Your task to perform on an android device: turn off improve location accuracy Image 0: 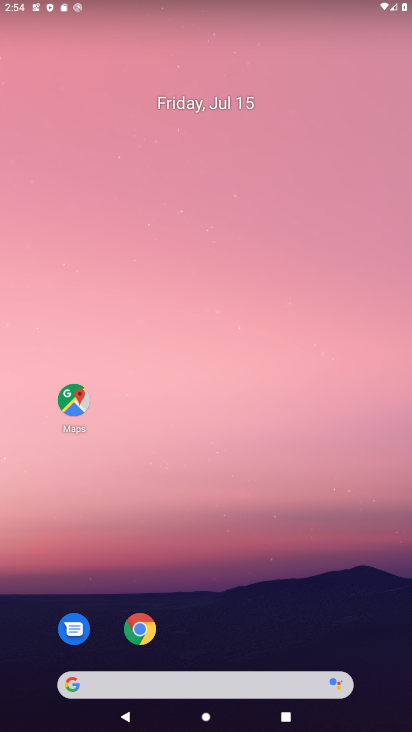
Step 0: drag from (187, 649) to (156, 34)
Your task to perform on an android device: turn off improve location accuracy Image 1: 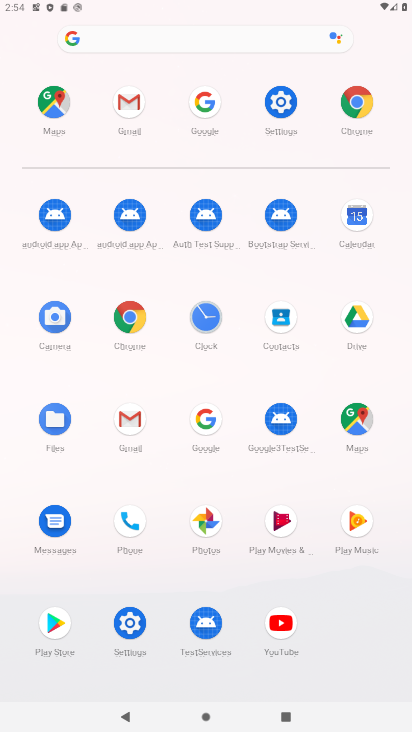
Step 1: click (123, 623)
Your task to perform on an android device: turn off improve location accuracy Image 2: 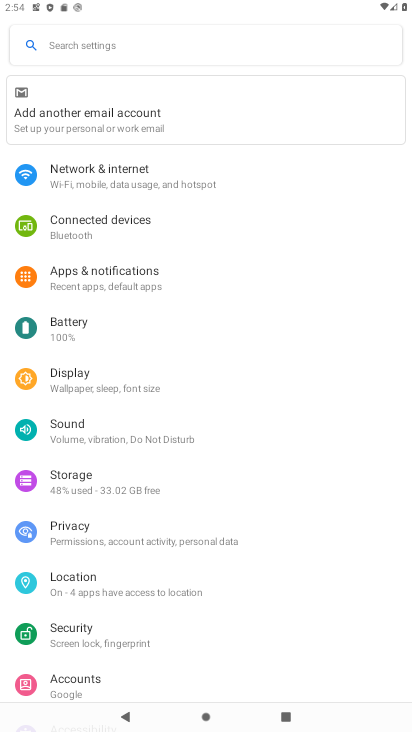
Step 2: click (63, 580)
Your task to perform on an android device: turn off improve location accuracy Image 3: 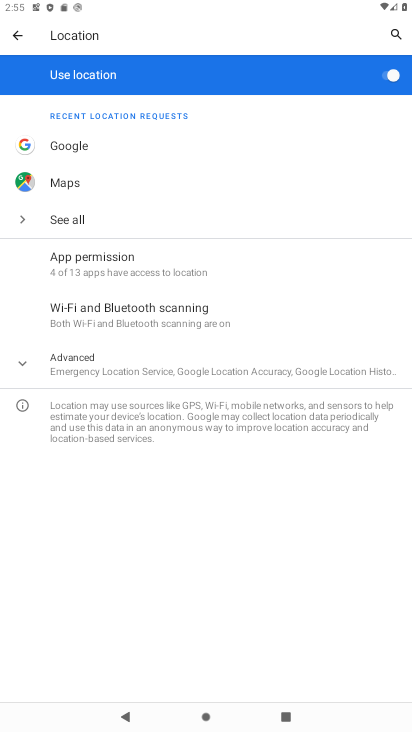
Step 3: click (112, 372)
Your task to perform on an android device: turn off improve location accuracy Image 4: 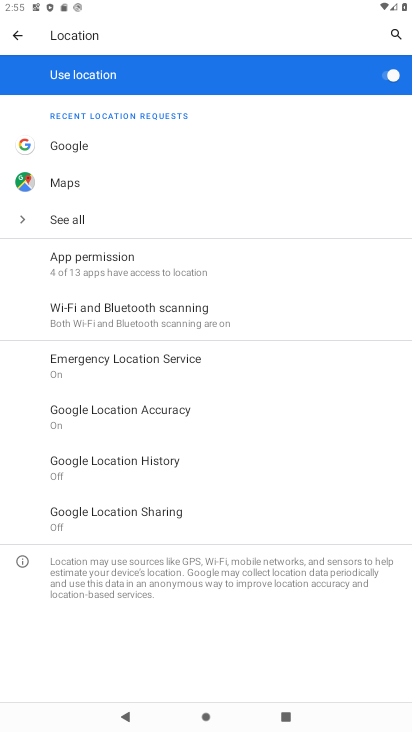
Step 4: click (161, 408)
Your task to perform on an android device: turn off improve location accuracy Image 5: 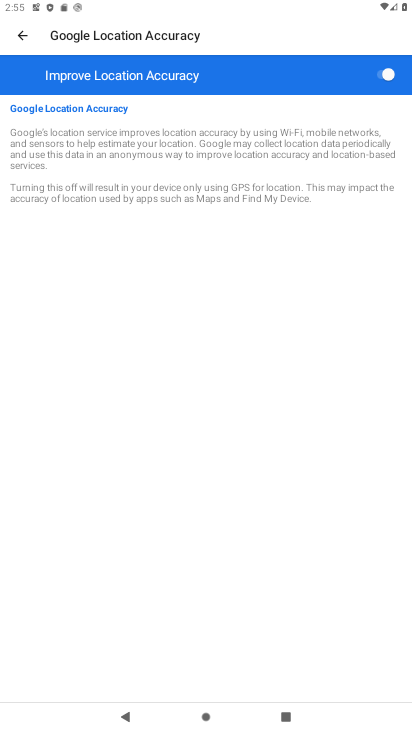
Step 5: click (376, 75)
Your task to perform on an android device: turn off improve location accuracy Image 6: 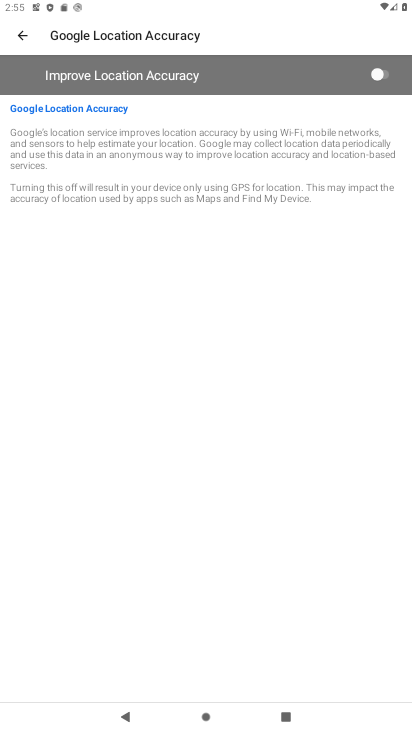
Step 6: task complete